Your task to perform on an android device: move a message to another label in the gmail app Image 0: 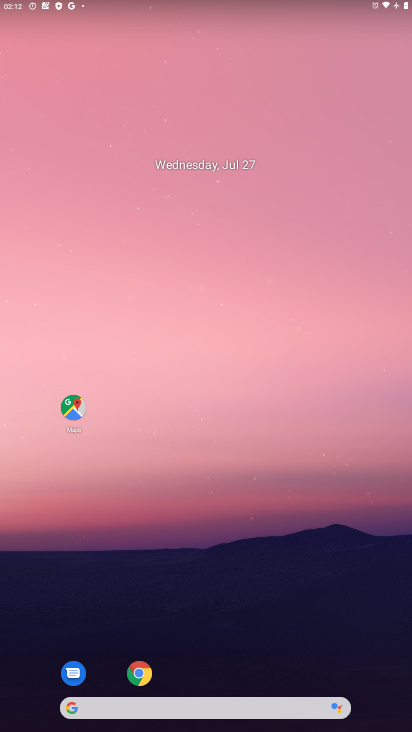
Step 0: drag from (227, 564) to (238, 48)
Your task to perform on an android device: move a message to another label in the gmail app Image 1: 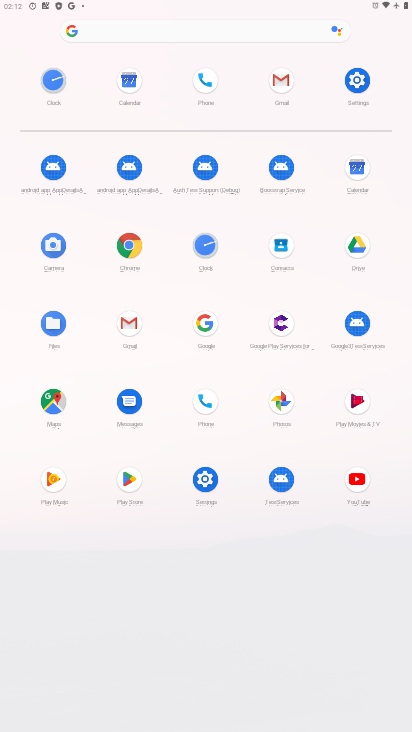
Step 1: click (280, 84)
Your task to perform on an android device: move a message to another label in the gmail app Image 2: 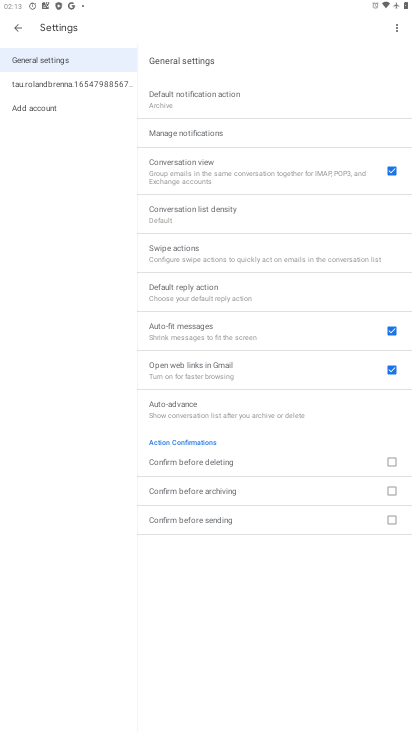
Step 2: click (15, 27)
Your task to perform on an android device: move a message to another label in the gmail app Image 3: 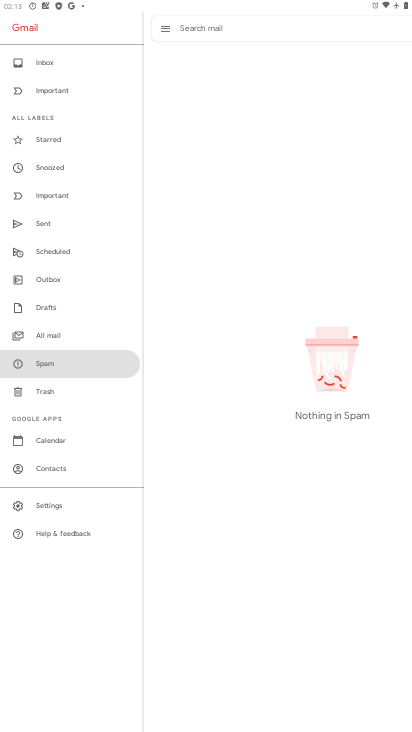
Step 3: click (60, 333)
Your task to perform on an android device: move a message to another label in the gmail app Image 4: 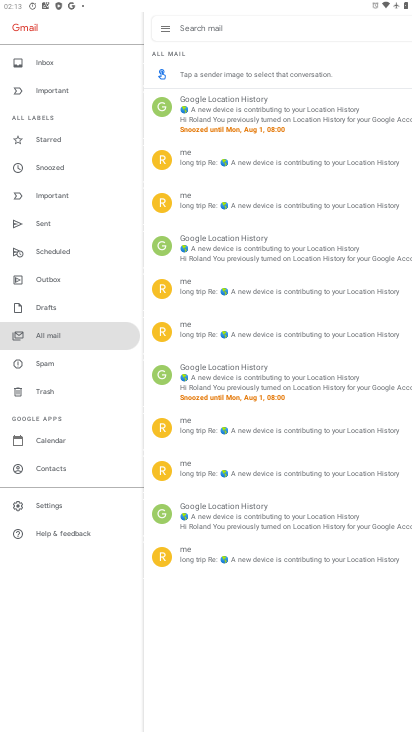
Step 4: click (274, 208)
Your task to perform on an android device: move a message to another label in the gmail app Image 5: 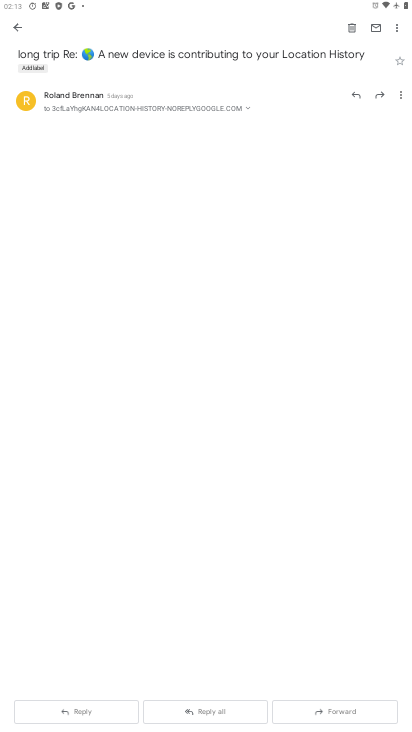
Step 5: click (398, 26)
Your task to perform on an android device: move a message to another label in the gmail app Image 6: 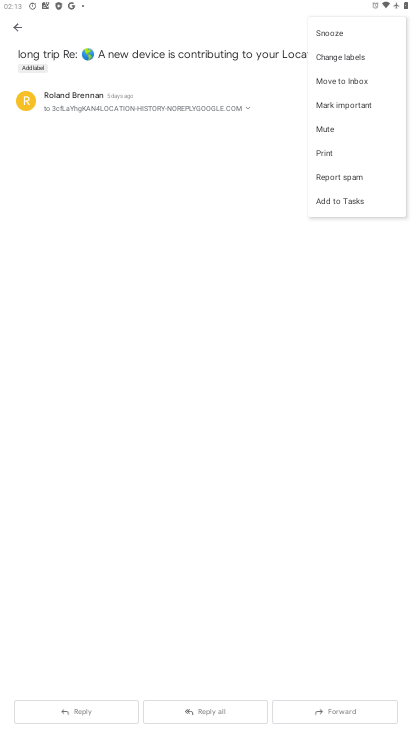
Step 6: click (348, 79)
Your task to perform on an android device: move a message to another label in the gmail app Image 7: 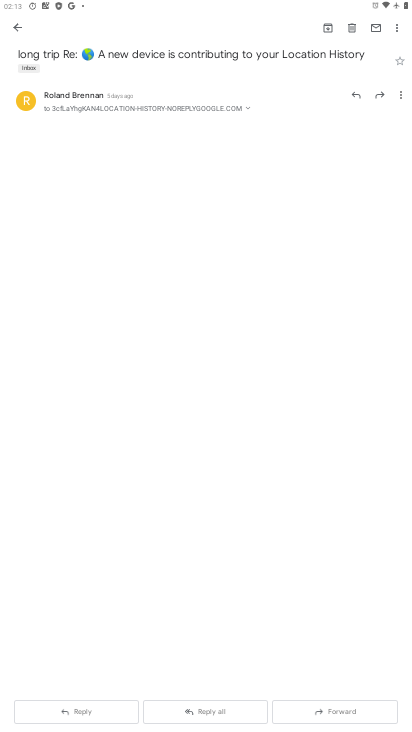
Step 7: task complete